Your task to perform on an android device: Open calendar and show me the fourth week of next month Image 0: 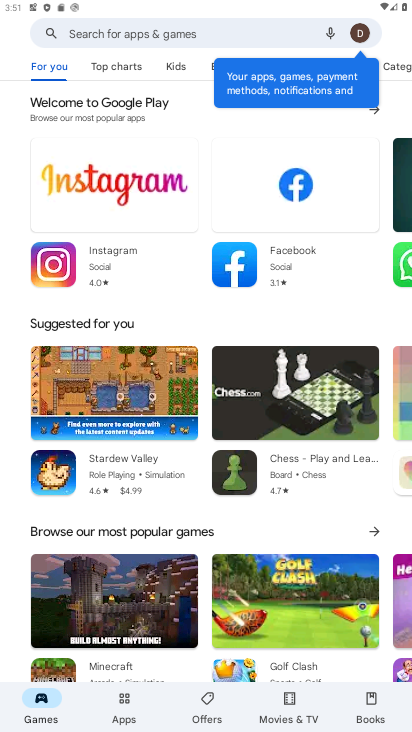
Step 0: press home button
Your task to perform on an android device: Open calendar and show me the fourth week of next month Image 1: 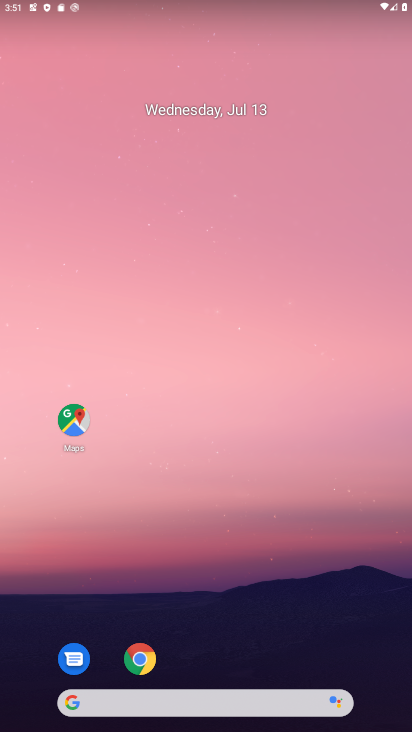
Step 1: drag from (219, 653) to (180, 70)
Your task to perform on an android device: Open calendar and show me the fourth week of next month Image 2: 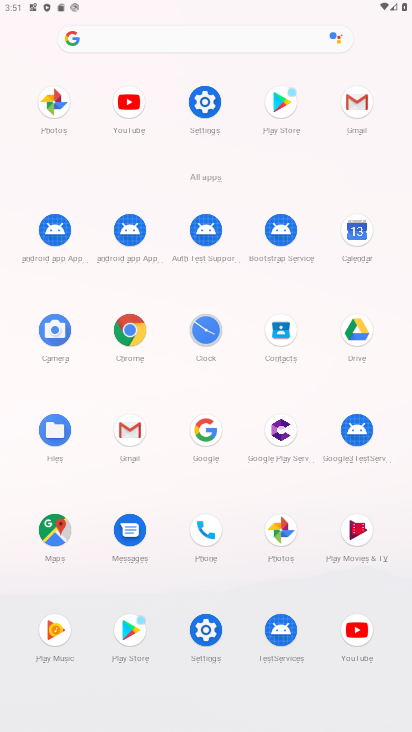
Step 2: click (356, 232)
Your task to perform on an android device: Open calendar and show me the fourth week of next month Image 3: 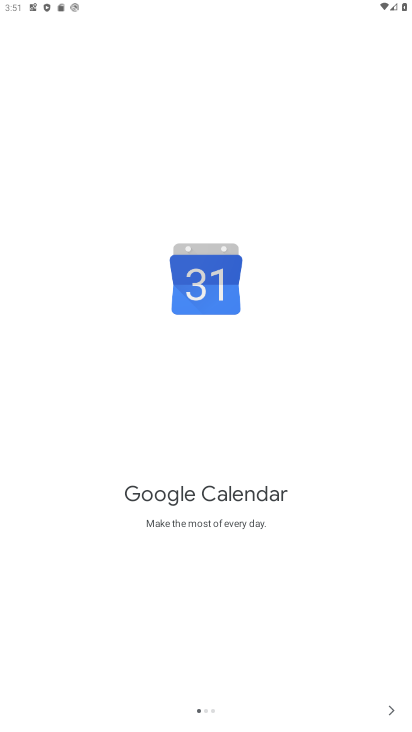
Step 3: click (392, 708)
Your task to perform on an android device: Open calendar and show me the fourth week of next month Image 4: 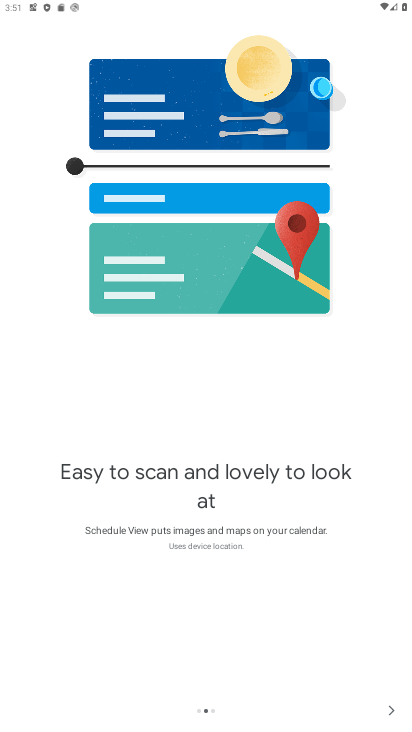
Step 4: click (393, 699)
Your task to perform on an android device: Open calendar and show me the fourth week of next month Image 5: 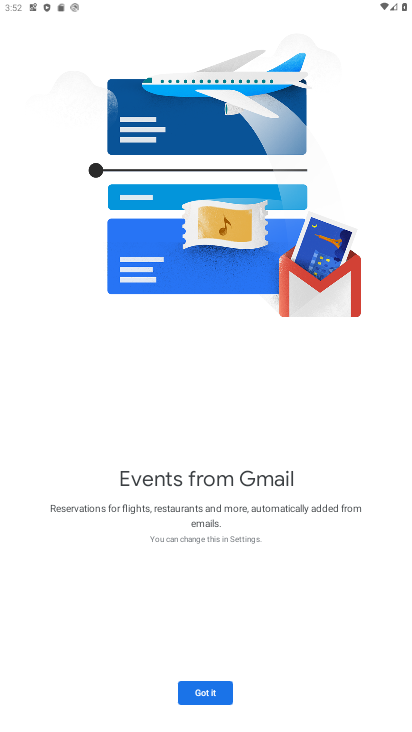
Step 5: click (217, 694)
Your task to perform on an android device: Open calendar and show me the fourth week of next month Image 6: 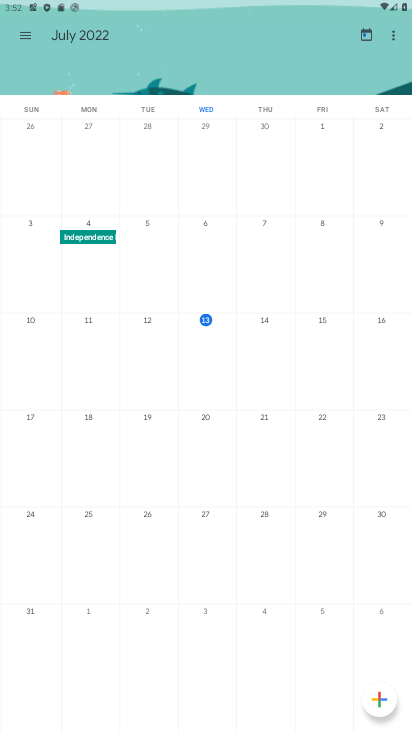
Step 6: click (112, 35)
Your task to perform on an android device: Open calendar and show me the fourth week of next month Image 7: 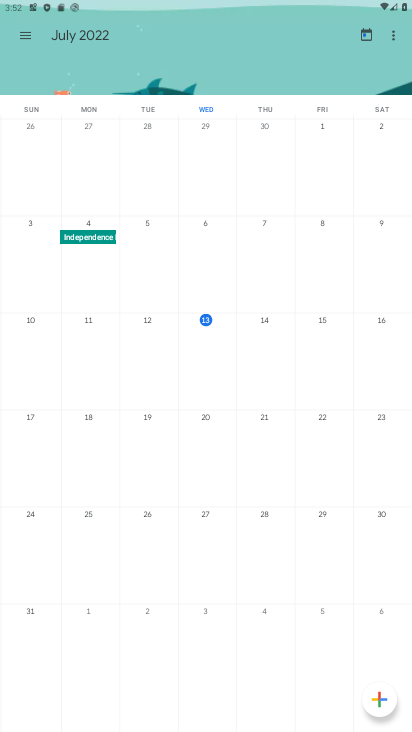
Step 7: drag from (351, 306) to (0, 329)
Your task to perform on an android device: Open calendar and show me the fourth week of next month Image 8: 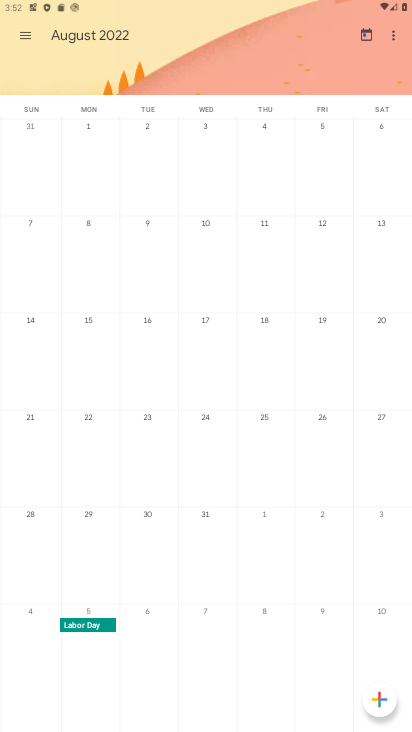
Step 8: drag from (363, 411) to (0, 442)
Your task to perform on an android device: Open calendar and show me the fourth week of next month Image 9: 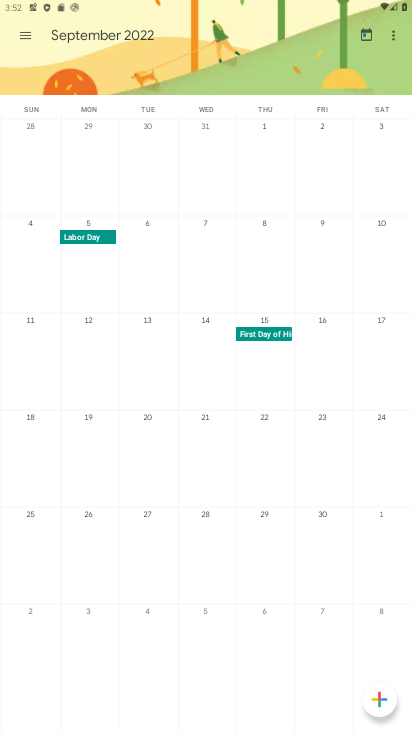
Step 9: click (32, 517)
Your task to perform on an android device: Open calendar and show me the fourth week of next month Image 10: 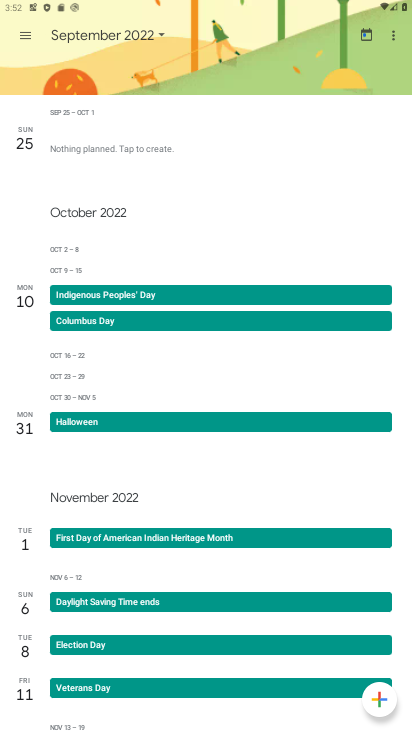
Step 10: task complete